Your task to perform on an android device: Clear the shopping cart on bestbuy. Image 0: 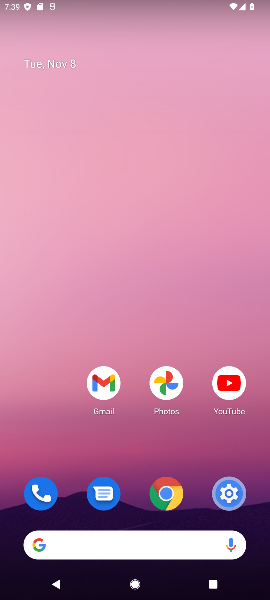
Step 0: click (161, 493)
Your task to perform on an android device: Clear the shopping cart on bestbuy. Image 1: 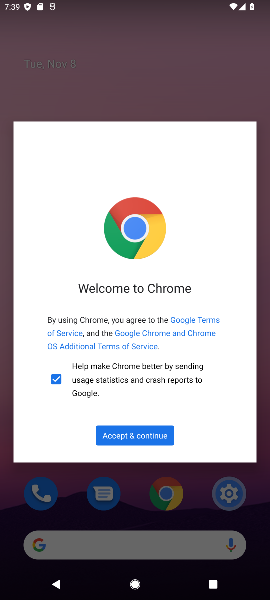
Step 1: click (109, 439)
Your task to perform on an android device: Clear the shopping cart on bestbuy. Image 2: 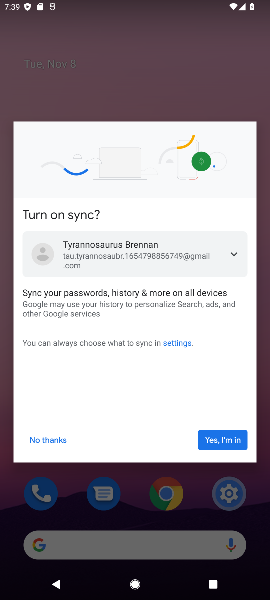
Step 2: click (205, 442)
Your task to perform on an android device: Clear the shopping cart on bestbuy. Image 3: 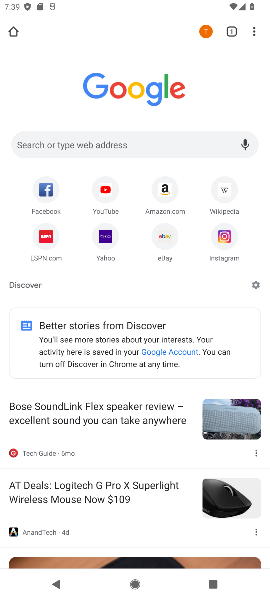
Step 3: click (82, 140)
Your task to perform on an android device: Clear the shopping cart on bestbuy. Image 4: 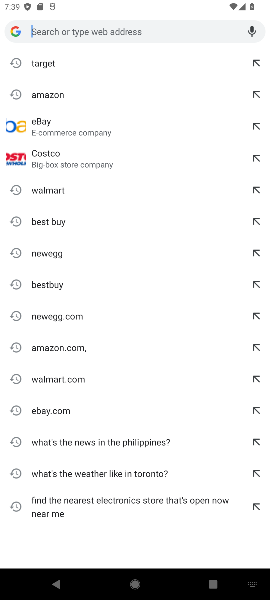
Step 4: type "bestbuy.com"
Your task to perform on an android device: Clear the shopping cart on bestbuy. Image 5: 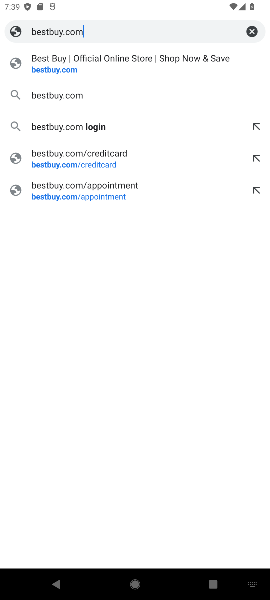
Step 5: click (57, 69)
Your task to perform on an android device: Clear the shopping cart on bestbuy. Image 6: 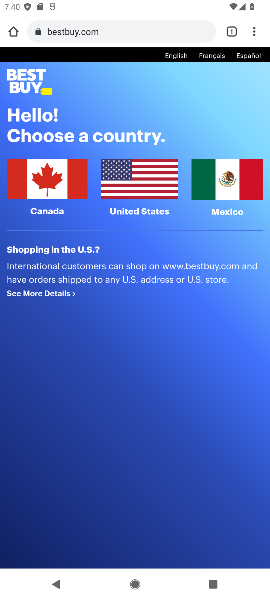
Step 6: click (120, 187)
Your task to perform on an android device: Clear the shopping cart on bestbuy. Image 7: 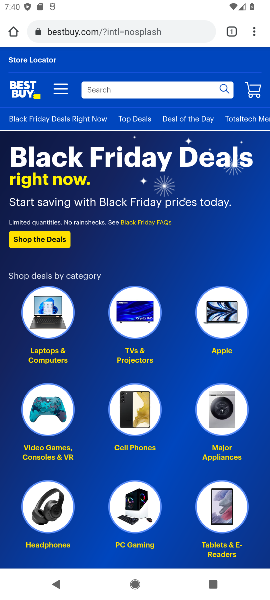
Step 7: click (253, 98)
Your task to perform on an android device: Clear the shopping cart on bestbuy. Image 8: 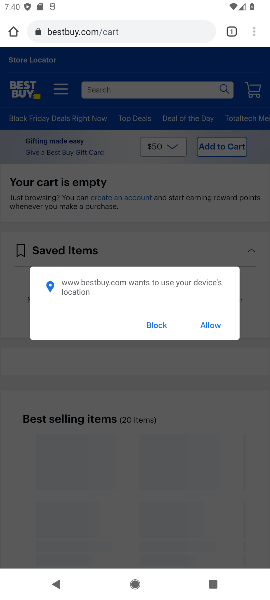
Step 8: task complete